Your task to perform on an android device: toggle show notifications on the lock screen Image 0: 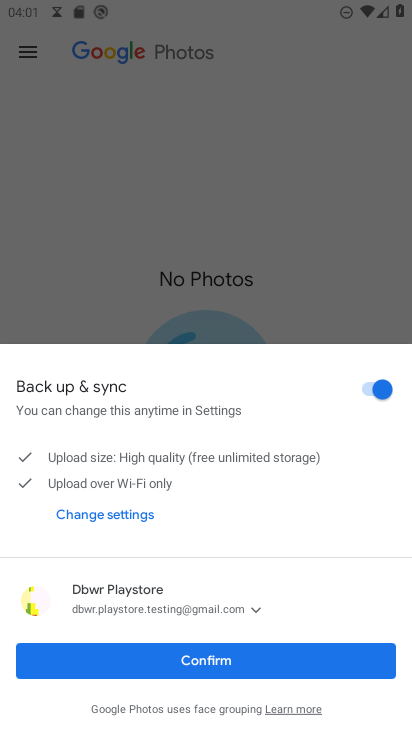
Step 0: press back button
Your task to perform on an android device: toggle show notifications on the lock screen Image 1: 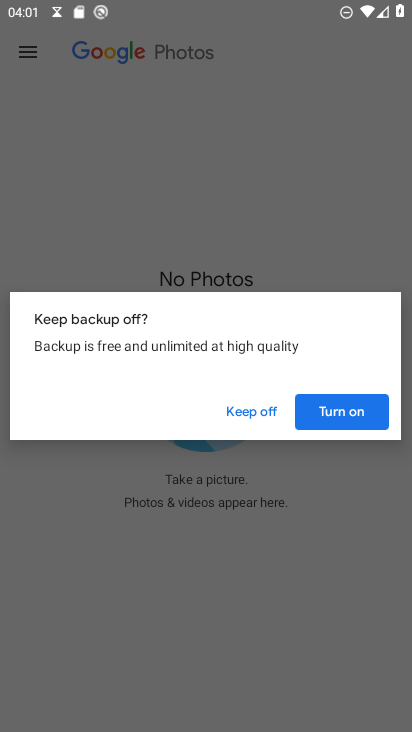
Step 1: press home button
Your task to perform on an android device: toggle show notifications on the lock screen Image 2: 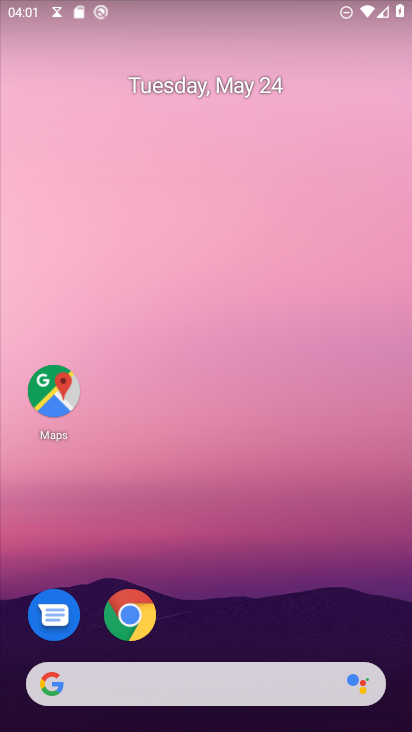
Step 2: drag from (281, 527) to (268, 6)
Your task to perform on an android device: toggle show notifications on the lock screen Image 3: 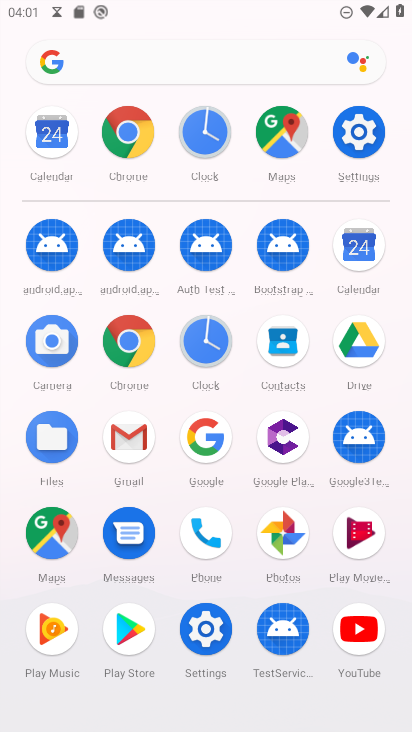
Step 3: click (201, 627)
Your task to perform on an android device: toggle show notifications on the lock screen Image 4: 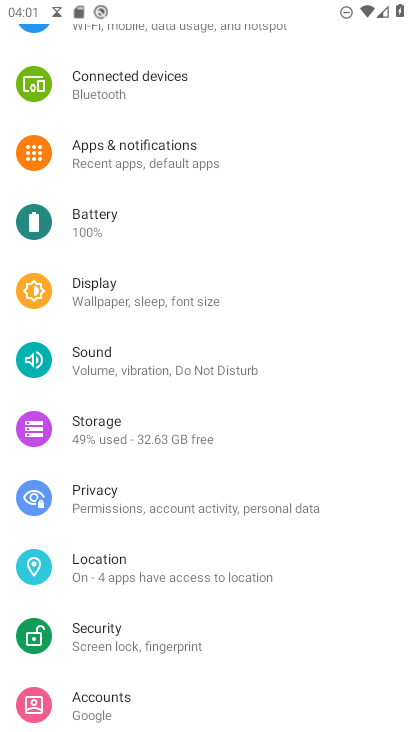
Step 4: click (190, 157)
Your task to perform on an android device: toggle show notifications on the lock screen Image 5: 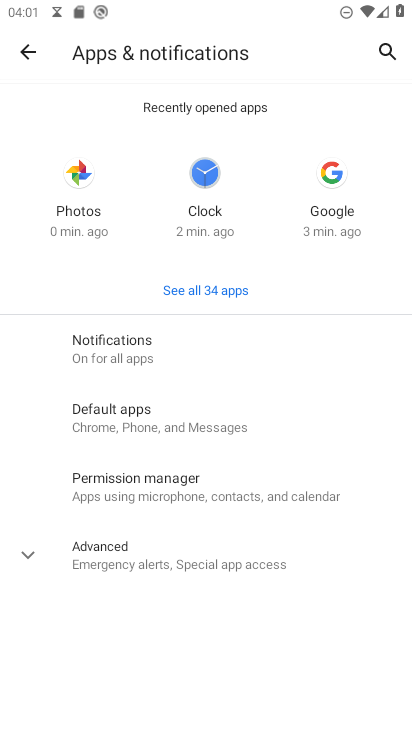
Step 5: click (20, 557)
Your task to perform on an android device: toggle show notifications on the lock screen Image 6: 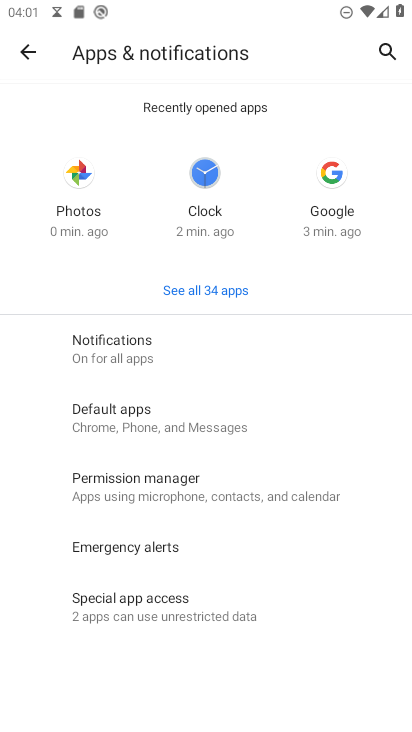
Step 6: click (168, 350)
Your task to perform on an android device: toggle show notifications on the lock screen Image 7: 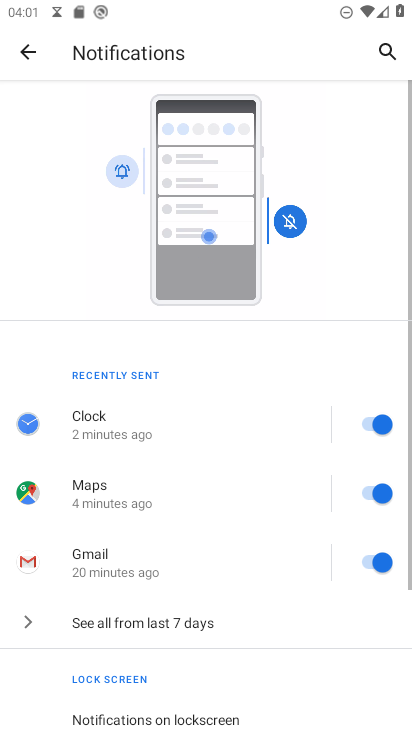
Step 7: drag from (241, 633) to (240, 146)
Your task to perform on an android device: toggle show notifications on the lock screen Image 8: 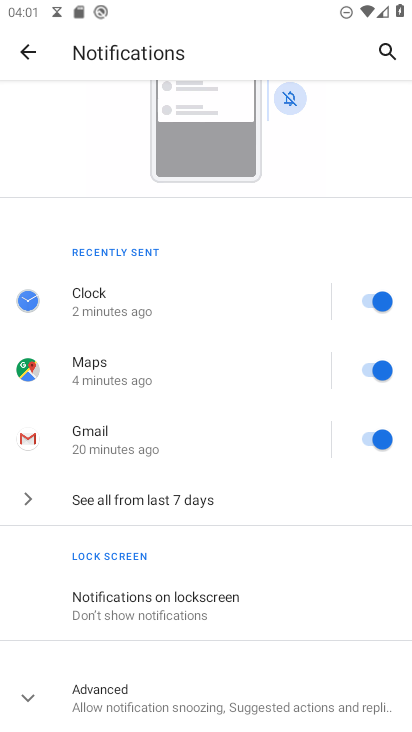
Step 8: click (60, 689)
Your task to perform on an android device: toggle show notifications on the lock screen Image 9: 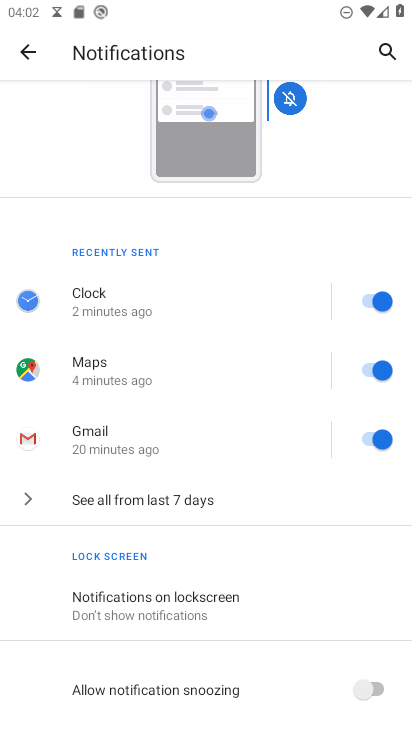
Step 9: drag from (232, 525) to (243, 238)
Your task to perform on an android device: toggle show notifications on the lock screen Image 10: 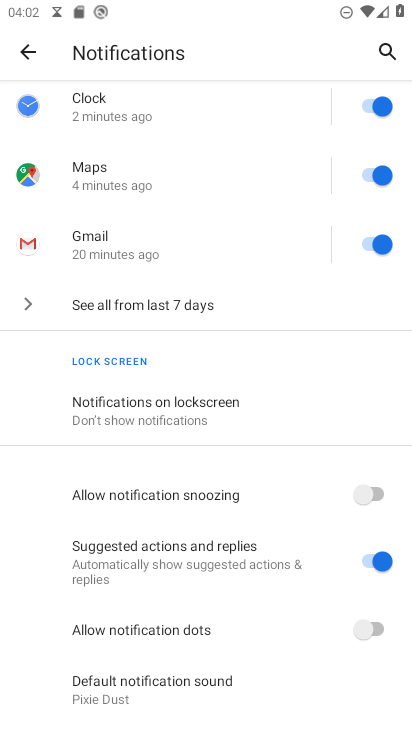
Step 10: click (197, 417)
Your task to perform on an android device: toggle show notifications on the lock screen Image 11: 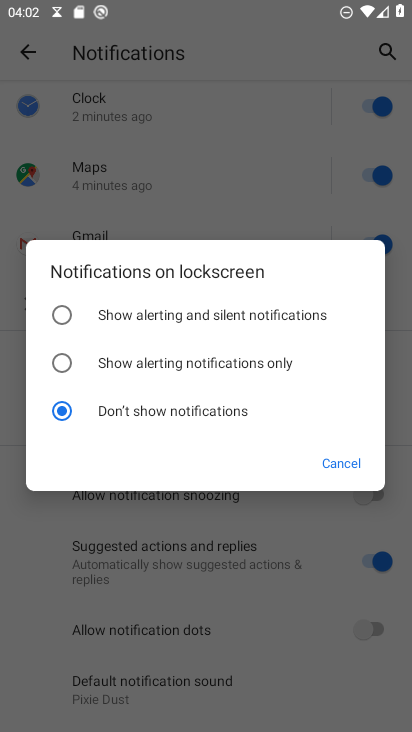
Step 11: click (202, 313)
Your task to perform on an android device: toggle show notifications on the lock screen Image 12: 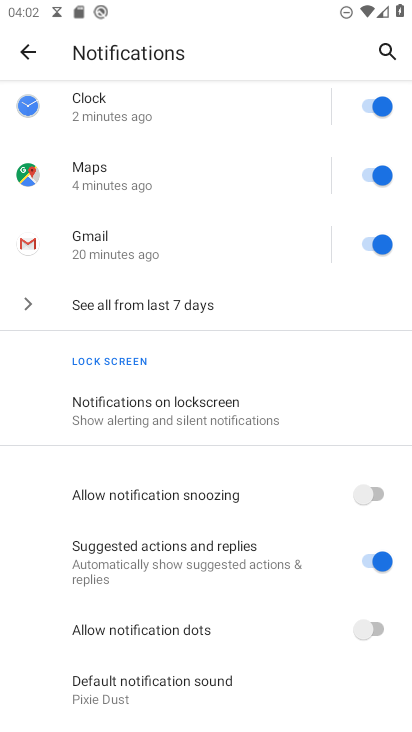
Step 12: task complete